Your task to perform on an android device: stop showing notifications on the lock screen Image 0: 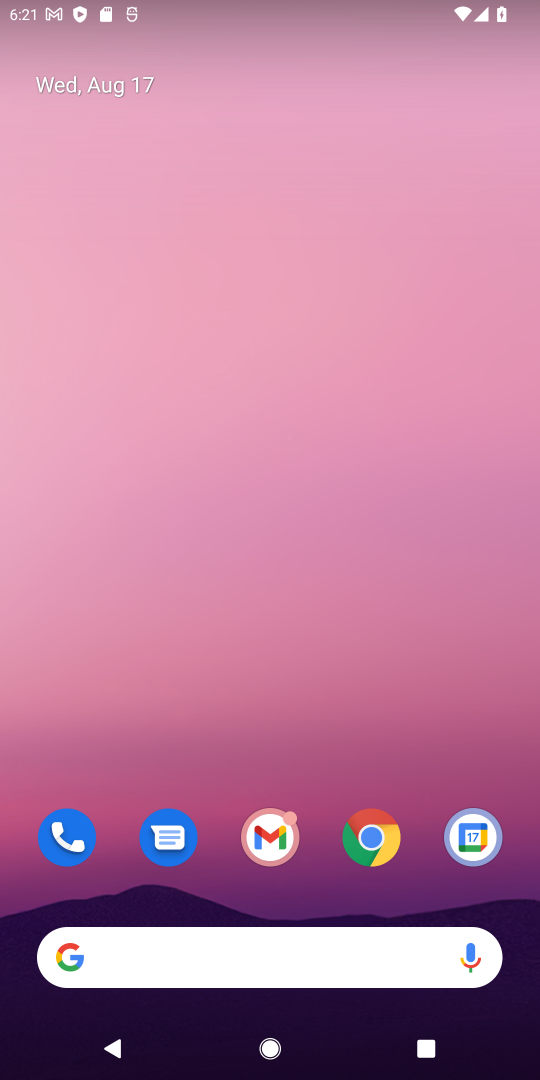
Step 0: drag from (325, 900) to (322, 62)
Your task to perform on an android device: stop showing notifications on the lock screen Image 1: 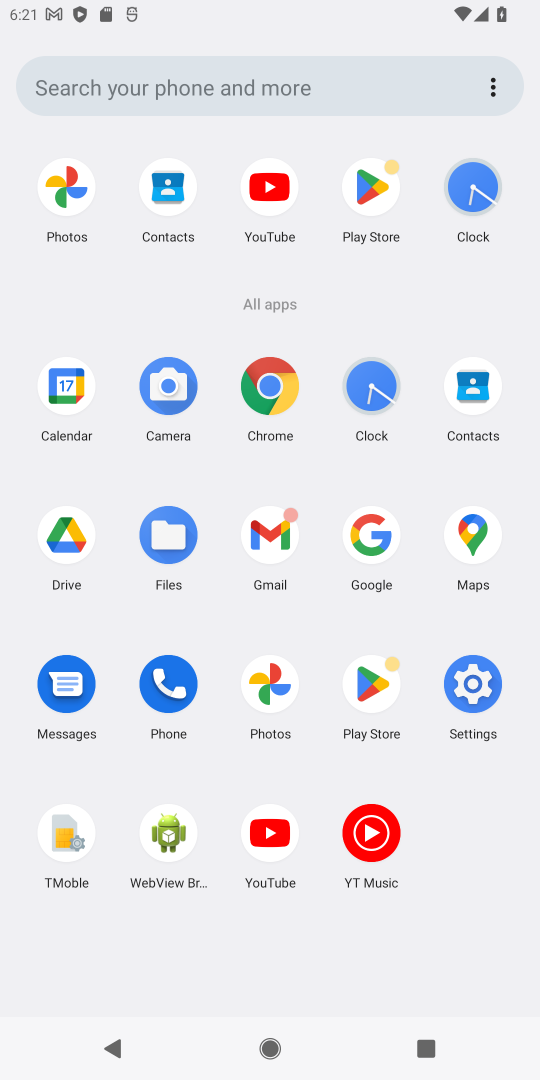
Step 1: click (461, 704)
Your task to perform on an android device: stop showing notifications on the lock screen Image 2: 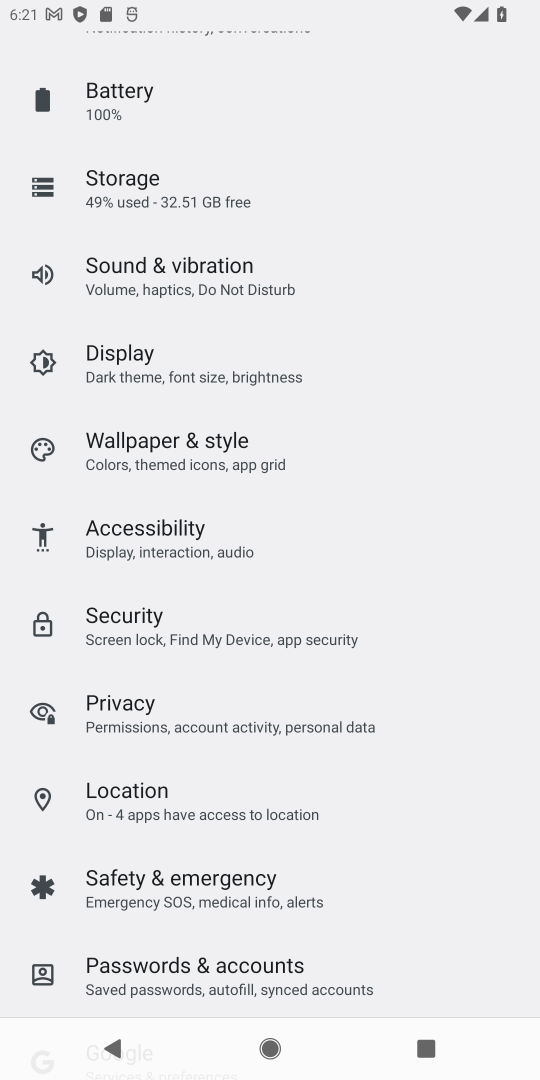
Step 2: drag from (337, 270) to (331, 986)
Your task to perform on an android device: stop showing notifications on the lock screen Image 3: 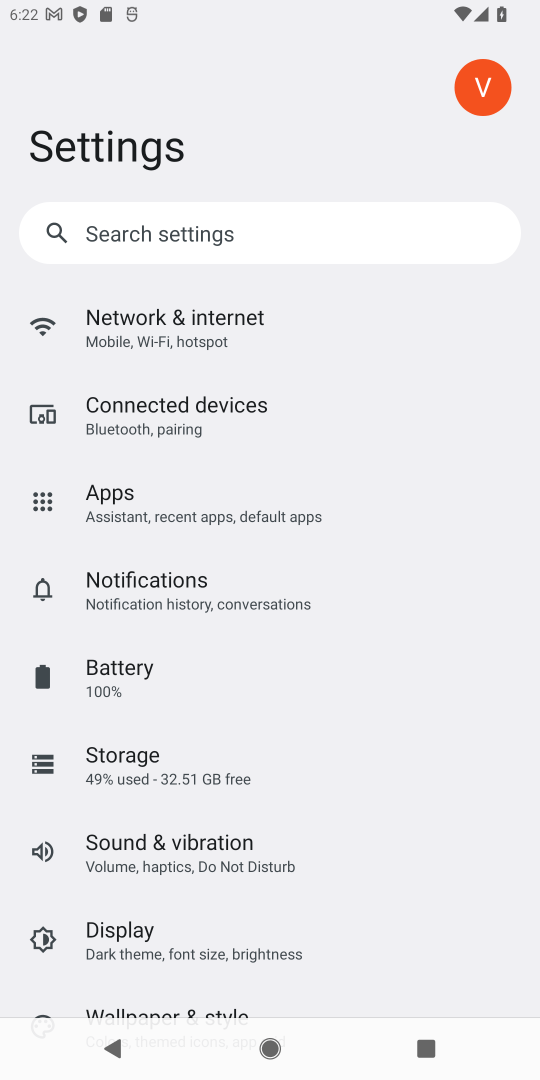
Step 3: click (226, 594)
Your task to perform on an android device: stop showing notifications on the lock screen Image 4: 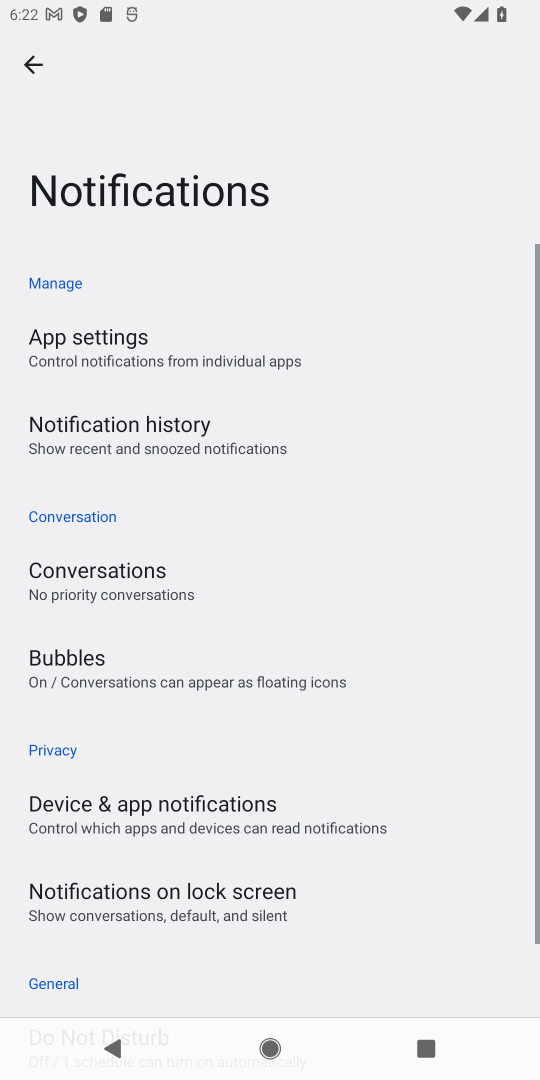
Step 4: drag from (196, 904) to (302, 533)
Your task to perform on an android device: stop showing notifications on the lock screen Image 5: 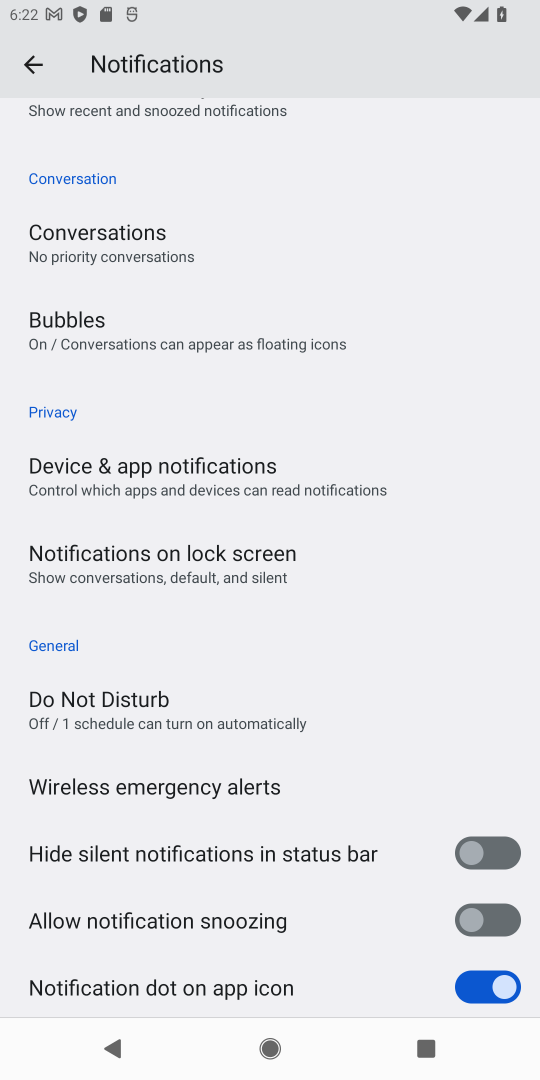
Step 5: click (178, 550)
Your task to perform on an android device: stop showing notifications on the lock screen Image 6: 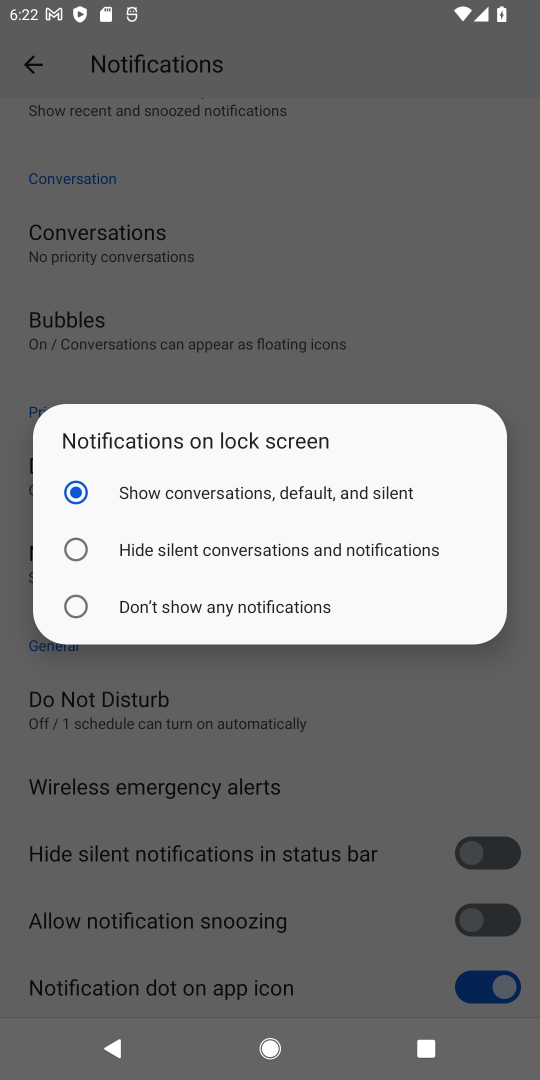
Step 6: click (87, 593)
Your task to perform on an android device: stop showing notifications on the lock screen Image 7: 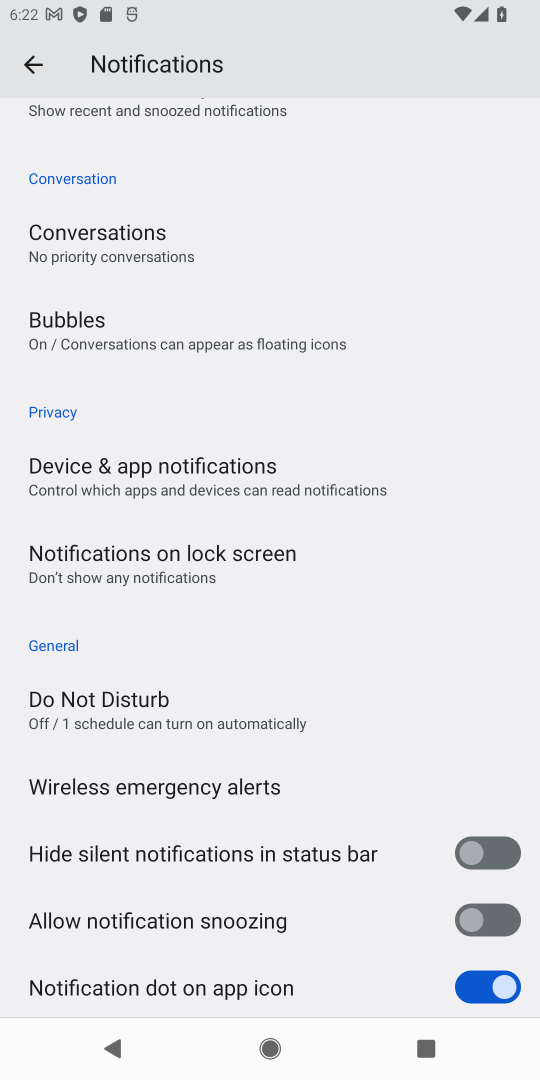
Step 7: task complete